Your task to perform on an android device: turn on bluetooth scan Image 0: 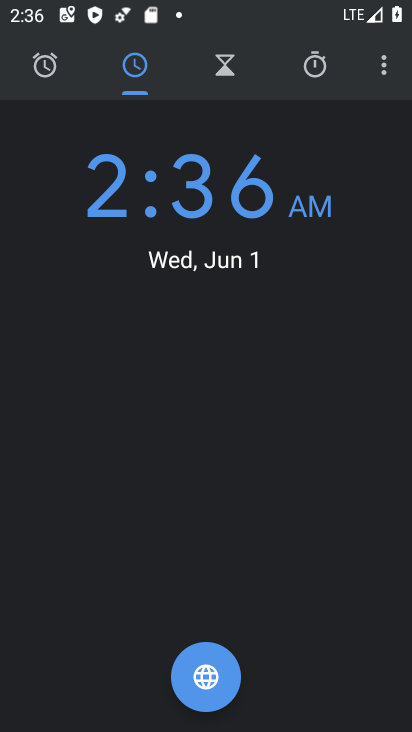
Step 0: press home button
Your task to perform on an android device: turn on bluetooth scan Image 1: 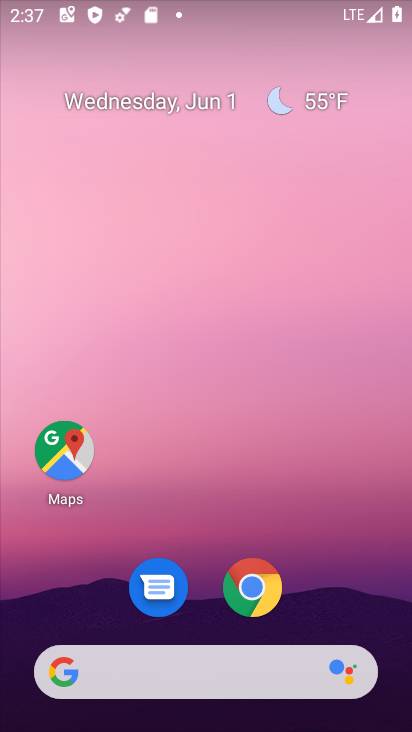
Step 1: drag from (225, 669) to (304, 228)
Your task to perform on an android device: turn on bluetooth scan Image 2: 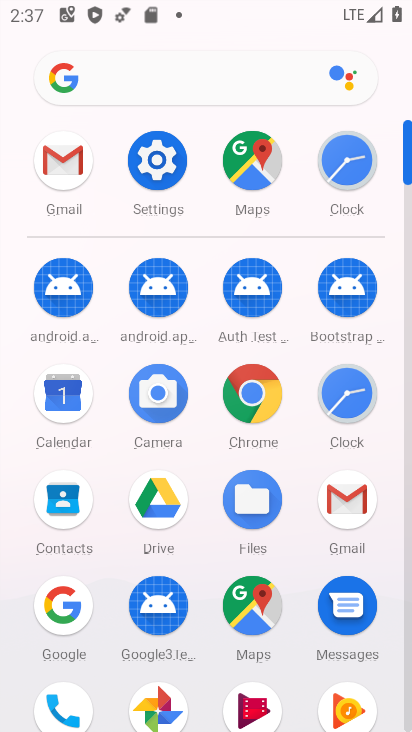
Step 2: click (183, 181)
Your task to perform on an android device: turn on bluetooth scan Image 3: 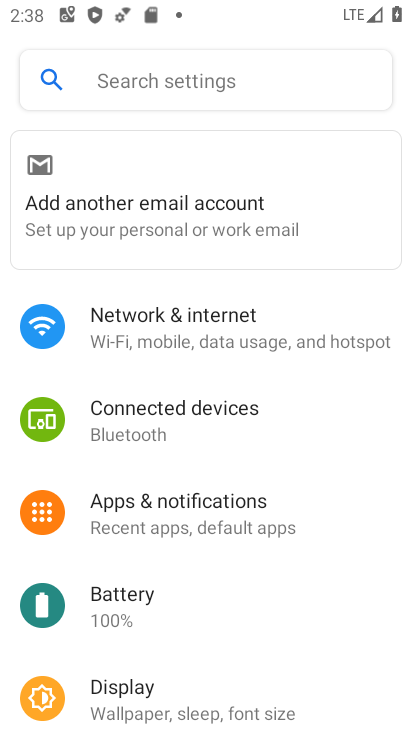
Step 3: drag from (166, 531) to (182, 286)
Your task to perform on an android device: turn on bluetooth scan Image 4: 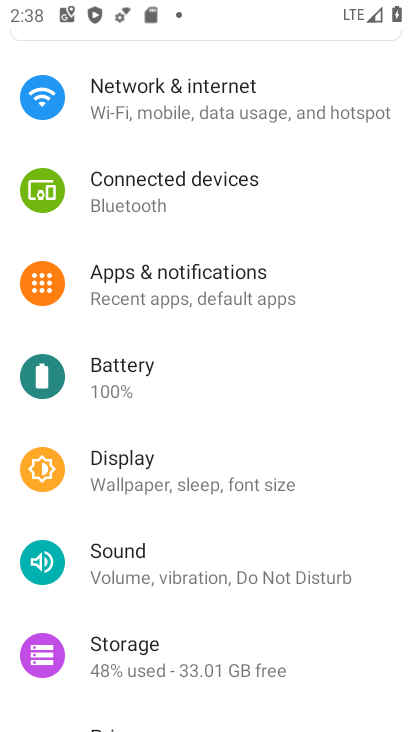
Step 4: drag from (155, 583) to (168, 36)
Your task to perform on an android device: turn on bluetooth scan Image 5: 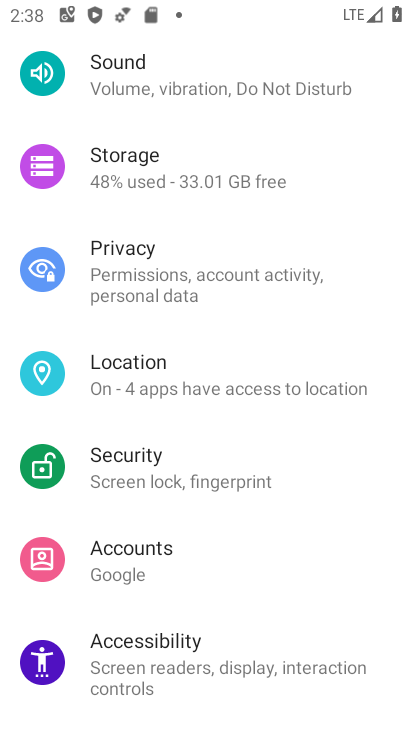
Step 5: click (191, 382)
Your task to perform on an android device: turn on bluetooth scan Image 6: 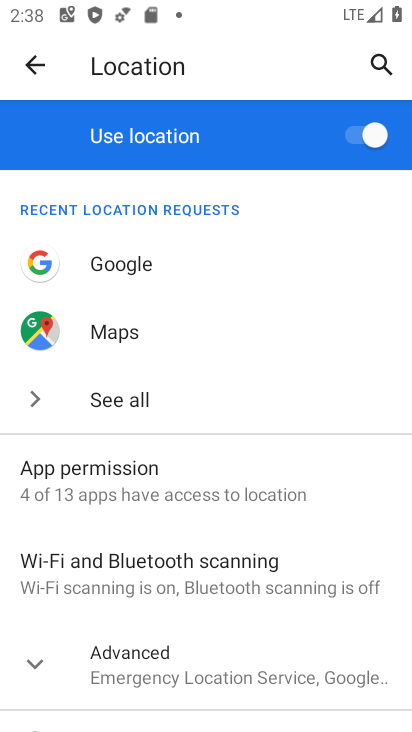
Step 6: click (152, 563)
Your task to perform on an android device: turn on bluetooth scan Image 7: 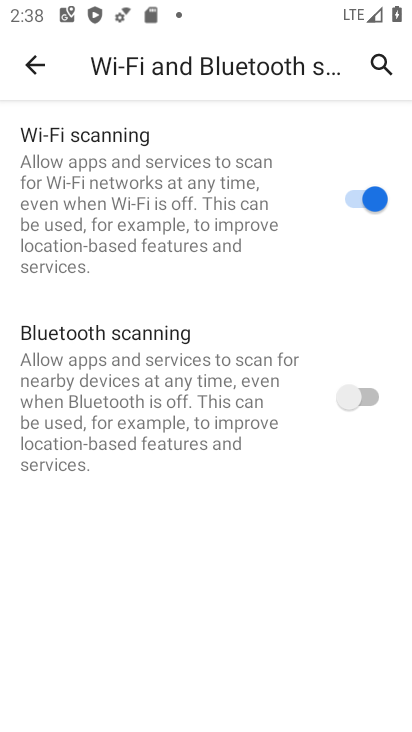
Step 7: click (356, 386)
Your task to perform on an android device: turn on bluetooth scan Image 8: 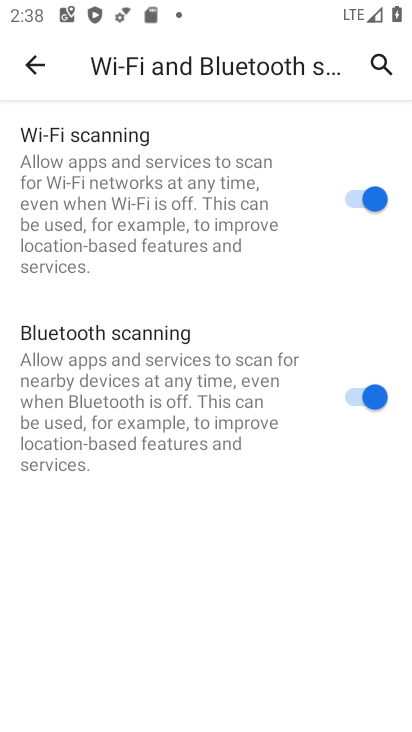
Step 8: task complete